Your task to perform on an android device: When is my next appointment? Image 0: 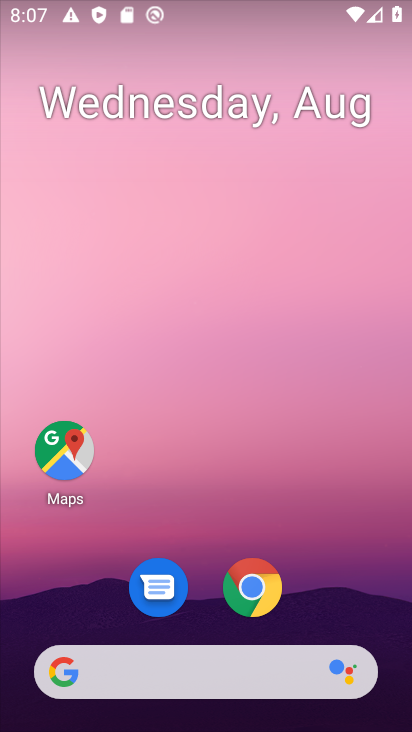
Step 0: drag from (190, 505) to (156, 193)
Your task to perform on an android device: When is my next appointment? Image 1: 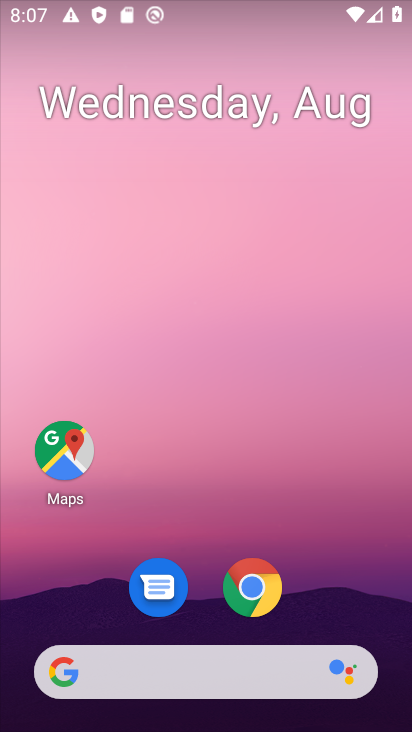
Step 1: drag from (159, 697) to (125, 442)
Your task to perform on an android device: When is my next appointment? Image 2: 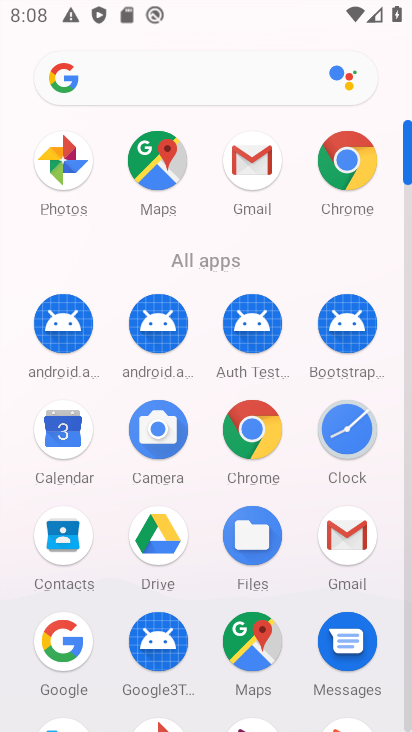
Step 2: click (59, 437)
Your task to perform on an android device: When is my next appointment? Image 3: 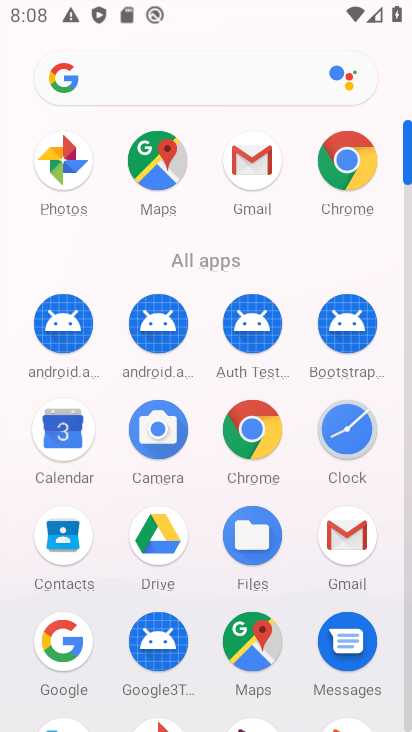
Step 3: click (59, 437)
Your task to perform on an android device: When is my next appointment? Image 4: 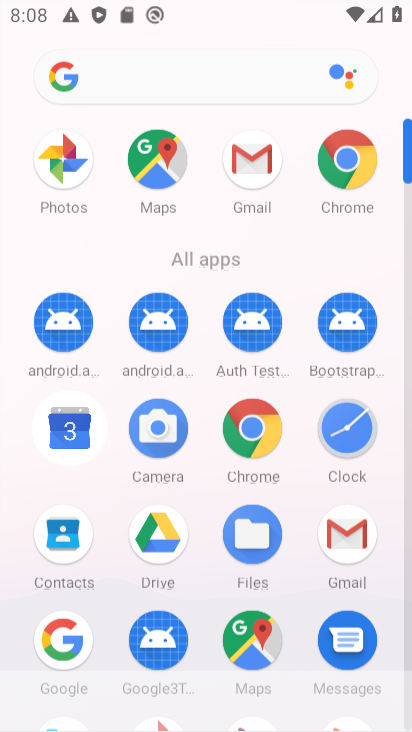
Step 4: click (59, 437)
Your task to perform on an android device: When is my next appointment? Image 5: 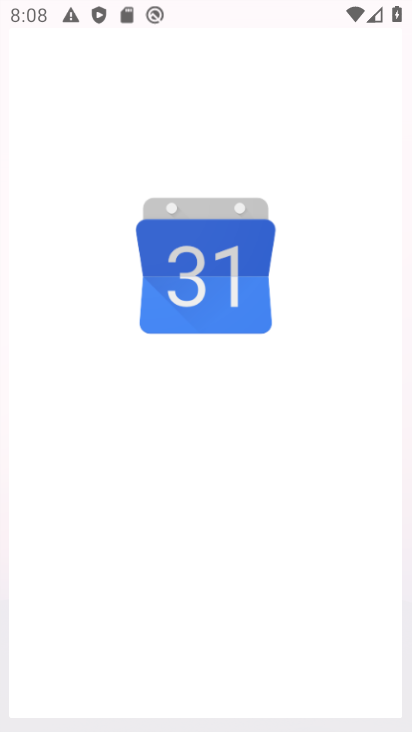
Step 5: click (59, 437)
Your task to perform on an android device: When is my next appointment? Image 6: 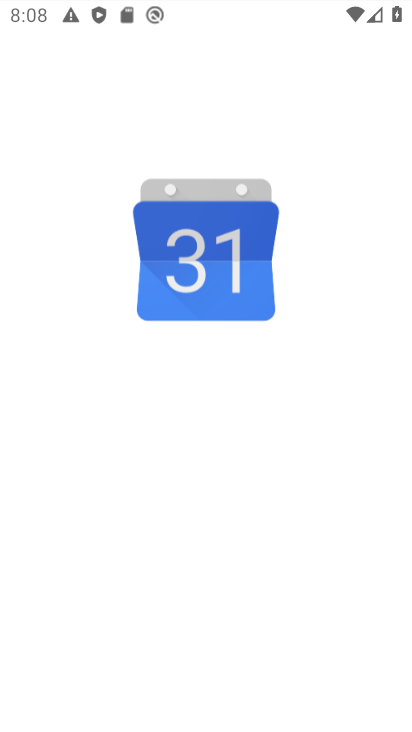
Step 6: click (59, 437)
Your task to perform on an android device: When is my next appointment? Image 7: 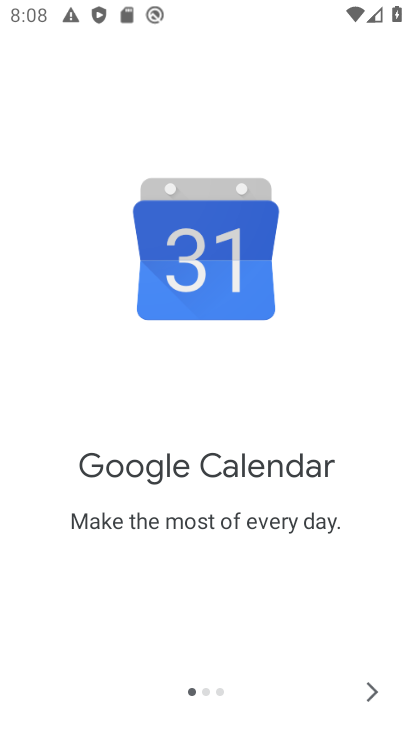
Step 7: click (379, 687)
Your task to perform on an android device: When is my next appointment? Image 8: 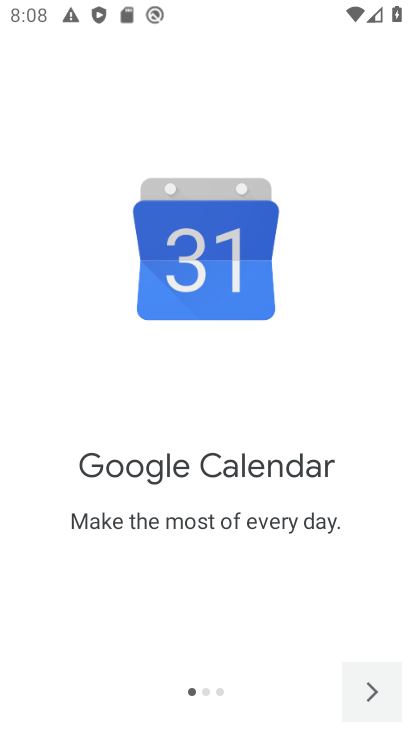
Step 8: click (380, 693)
Your task to perform on an android device: When is my next appointment? Image 9: 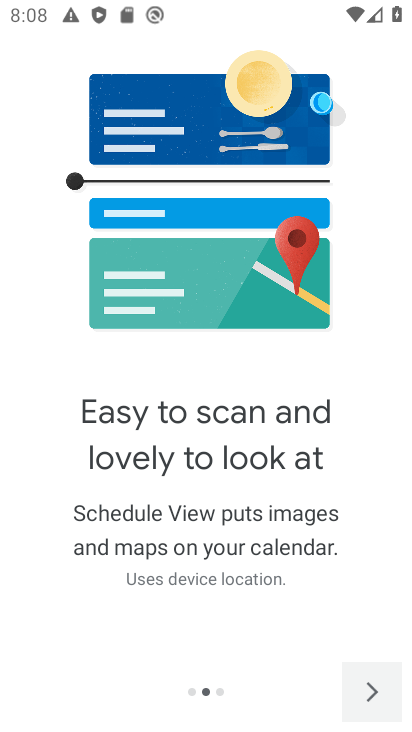
Step 9: click (379, 693)
Your task to perform on an android device: When is my next appointment? Image 10: 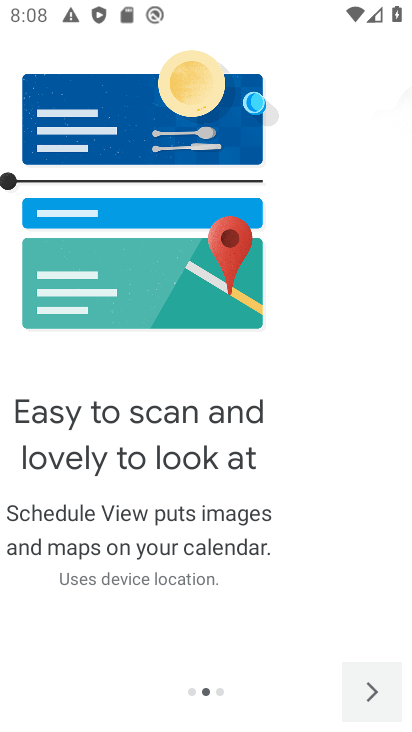
Step 10: click (379, 693)
Your task to perform on an android device: When is my next appointment? Image 11: 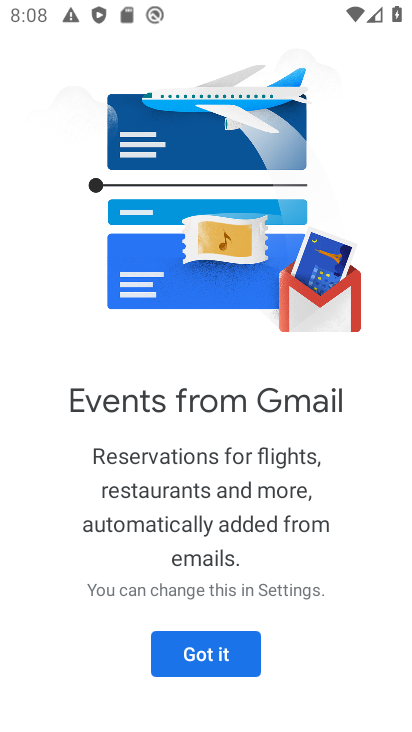
Step 11: click (222, 643)
Your task to perform on an android device: When is my next appointment? Image 12: 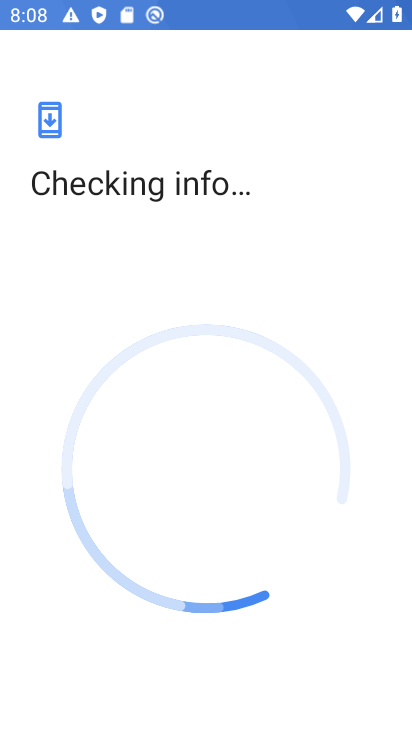
Step 12: press back button
Your task to perform on an android device: When is my next appointment? Image 13: 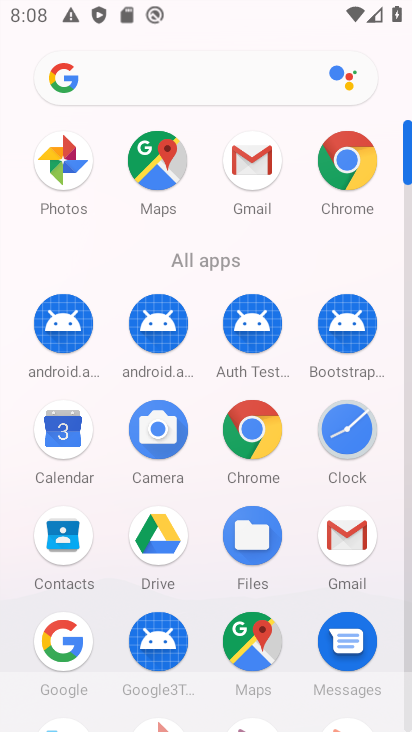
Step 13: click (56, 428)
Your task to perform on an android device: When is my next appointment? Image 14: 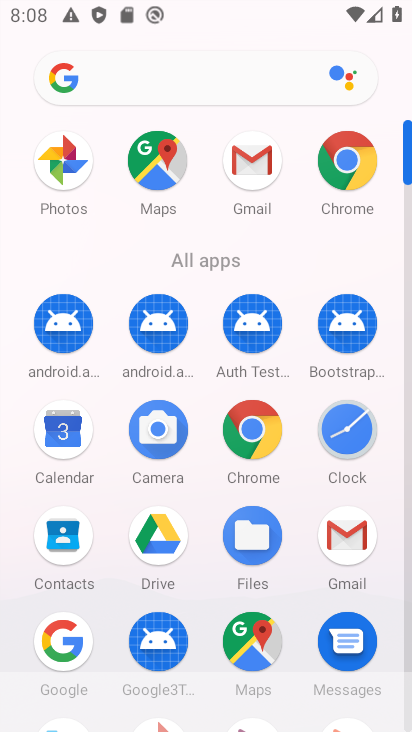
Step 14: click (60, 426)
Your task to perform on an android device: When is my next appointment? Image 15: 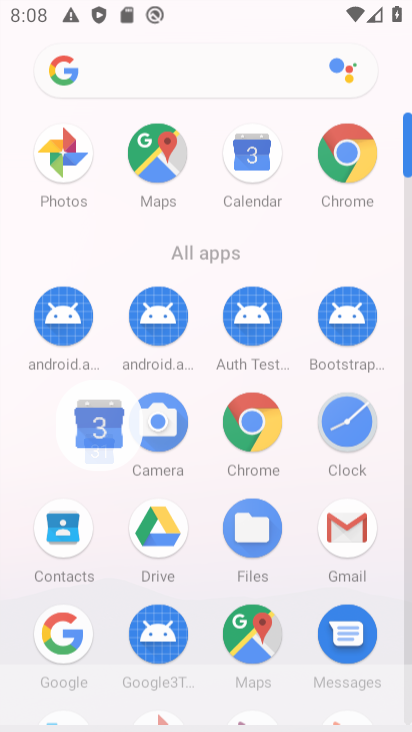
Step 15: click (73, 437)
Your task to perform on an android device: When is my next appointment? Image 16: 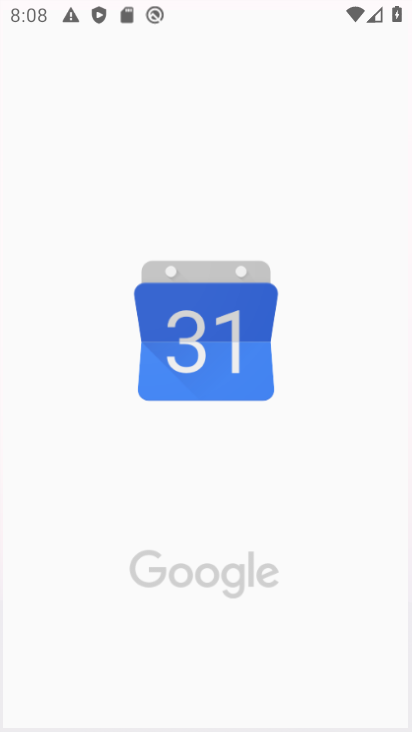
Step 16: click (73, 434)
Your task to perform on an android device: When is my next appointment? Image 17: 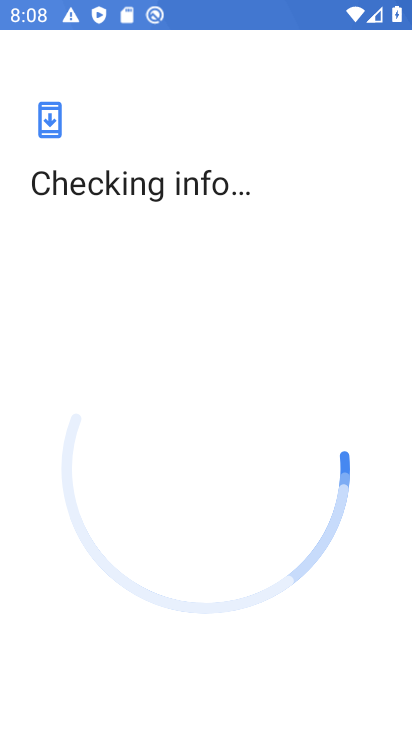
Step 17: click (186, 59)
Your task to perform on an android device: When is my next appointment? Image 18: 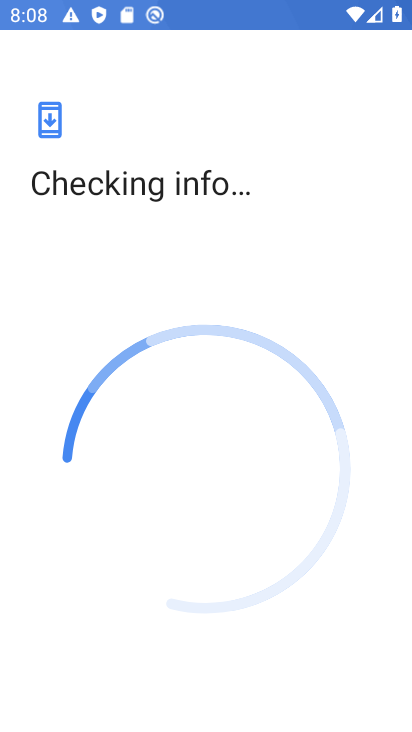
Step 18: press back button
Your task to perform on an android device: When is my next appointment? Image 19: 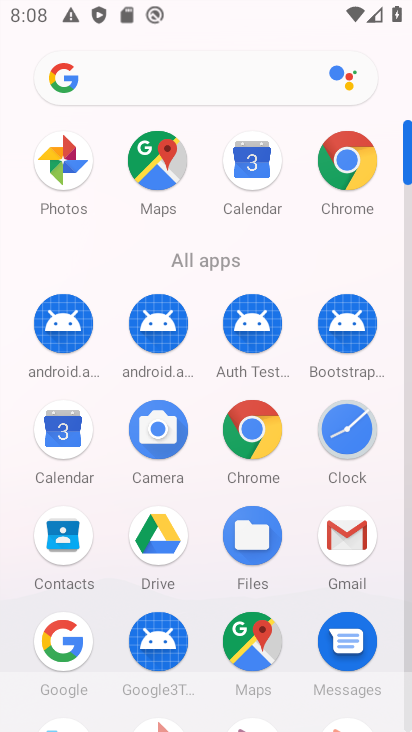
Step 19: click (65, 422)
Your task to perform on an android device: When is my next appointment? Image 20: 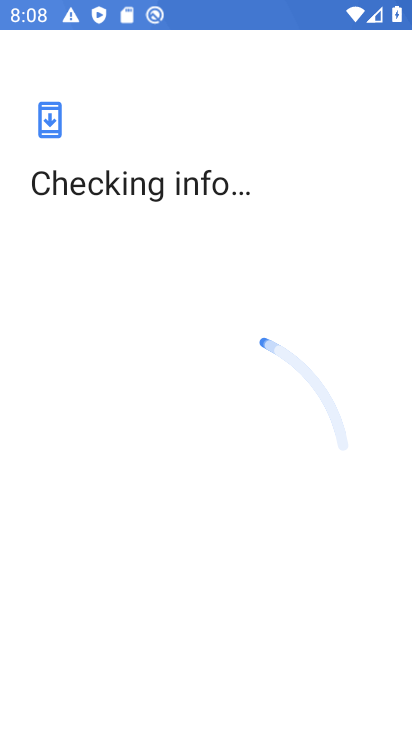
Step 20: press back button
Your task to perform on an android device: When is my next appointment? Image 21: 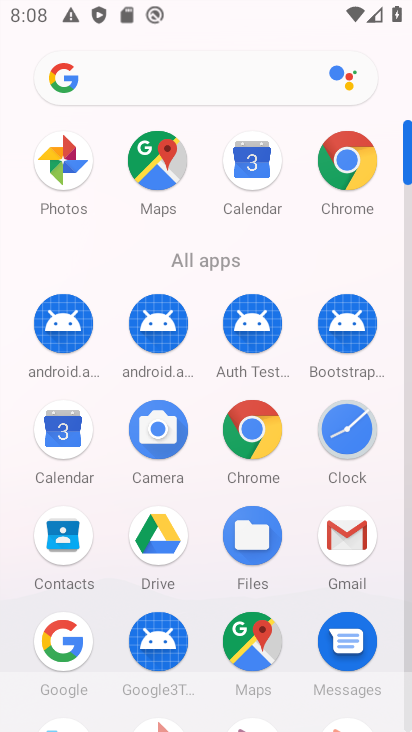
Step 21: click (43, 429)
Your task to perform on an android device: When is my next appointment? Image 22: 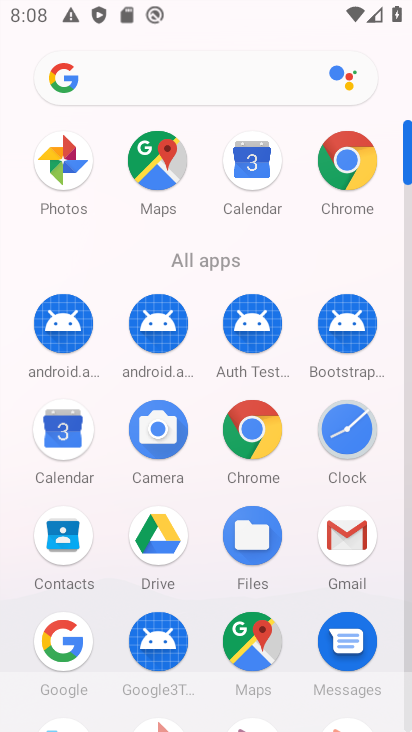
Step 22: click (46, 429)
Your task to perform on an android device: When is my next appointment? Image 23: 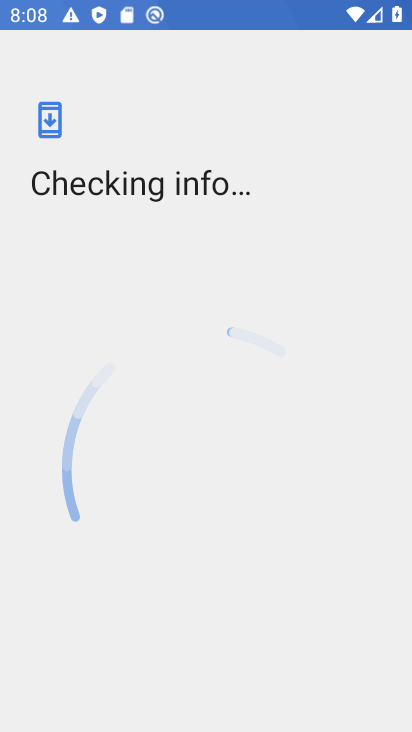
Step 23: task complete